Your task to perform on an android device: Search for logitech g903 on amazon, select the first entry, add it to the cart, then select checkout. Image 0: 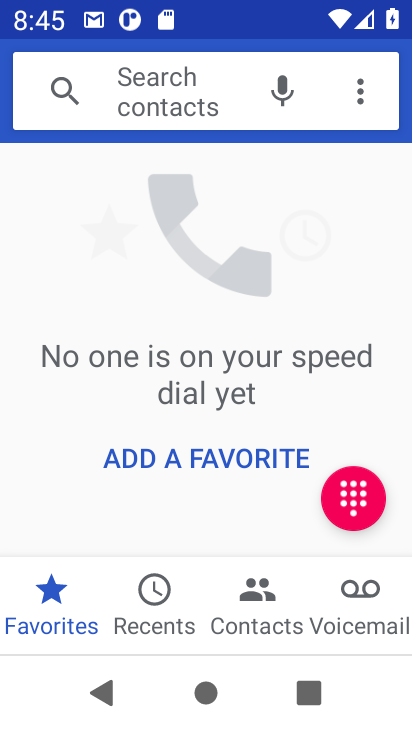
Step 0: press home button
Your task to perform on an android device: Search for logitech g903 on amazon, select the first entry, add it to the cart, then select checkout. Image 1: 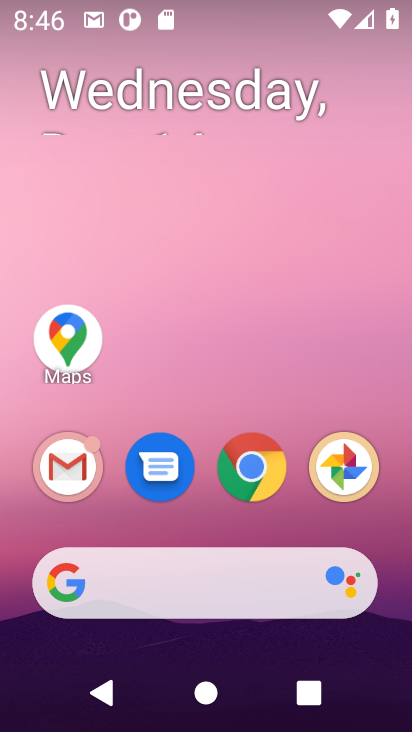
Step 1: click (233, 482)
Your task to perform on an android device: Search for logitech g903 on amazon, select the first entry, add it to the cart, then select checkout. Image 2: 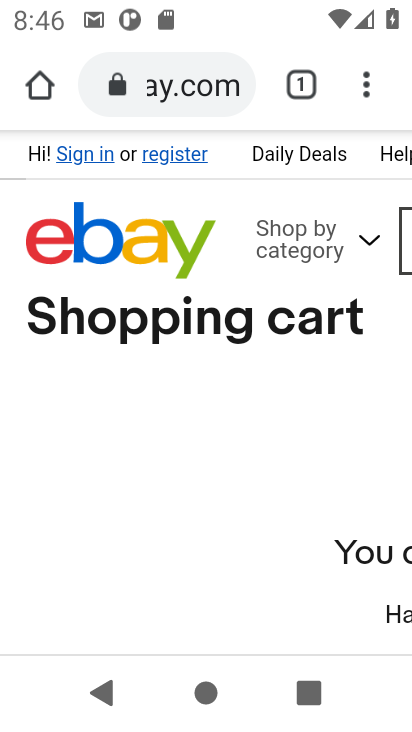
Step 2: click (135, 105)
Your task to perform on an android device: Search for logitech g903 on amazon, select the first entry, add it to the cart, then select checkout. Image 3: 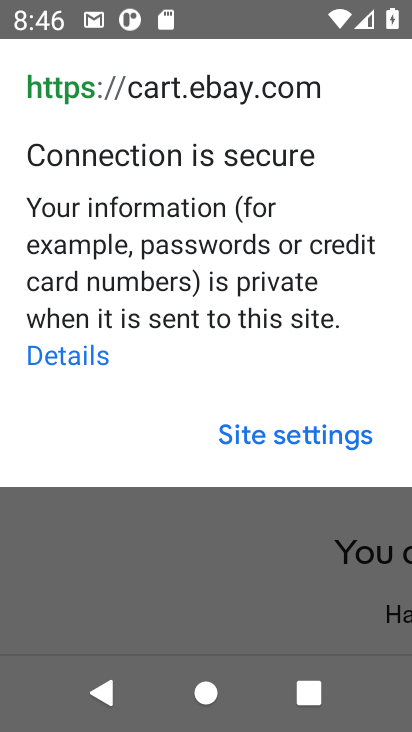
Step 3: click (166, 505)
Your task to perform on an android device: Search for logitech g903 on amazon, select the first entry, add it to the cart, then select checkout. Image 4: 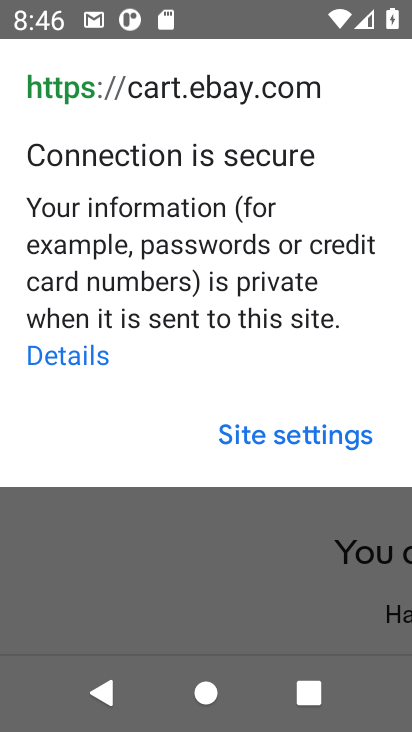
Step 4: click (166, 505)
Your task to perform on an android device: Search for logitech g903 on amazon, select the first entry, add it to the cart, then select checkout. Image 5: 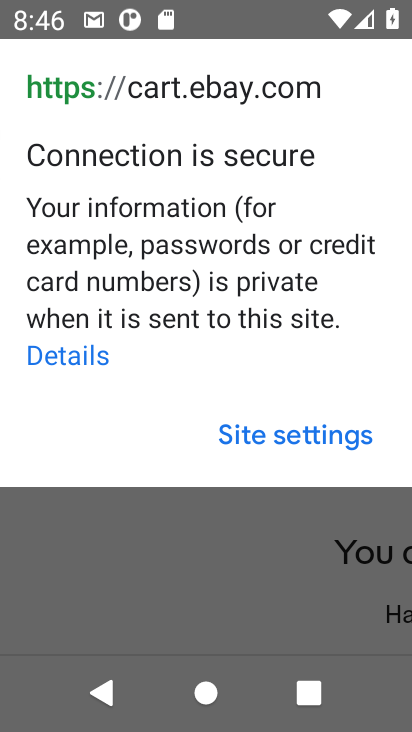
Step 5: click (166, 505)
Your task to perform on an android device: Search for logitech g903 on amazon, select the first entry, add it to the cart, then select checkout. Image 6: 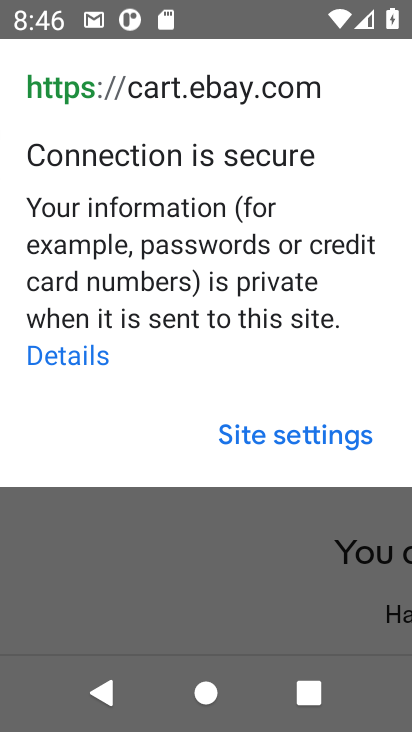
Step 6: click (166, 505)
Your task to perform on an android device: Search for logitech g903 on amazon, select the first entry, add it to the cart, then select checkout. Image 7: 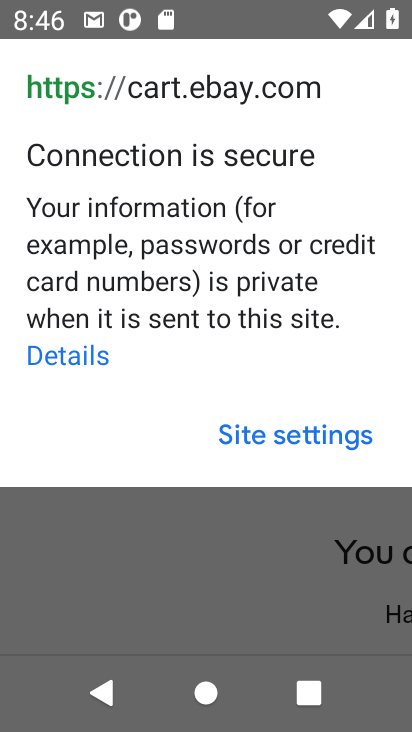
Step 7: click (258, 449)
Your task to perform on an android device: Search for logitech g903 on amazon, select the first entry, add it to the cart, then select checkout. Image 8: 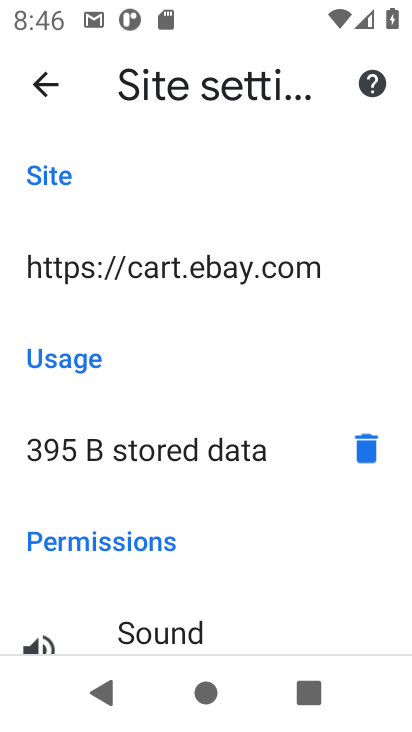
Step 8: click (41, 97)
Your task to perform on an android device: Search for logitech g903 on amazon, select the first entry, add it to the cart, then select checkout. Image 9: 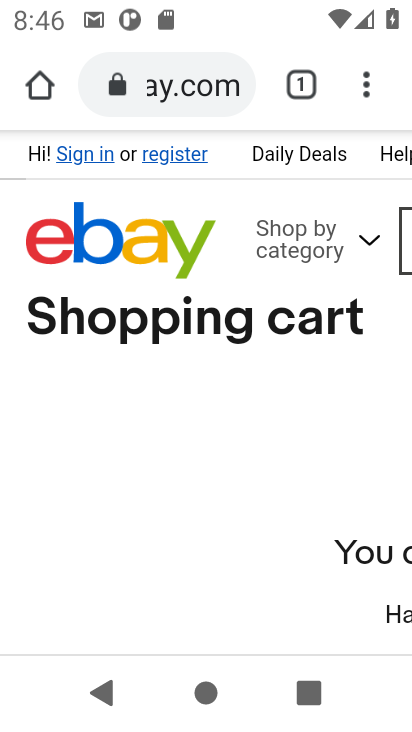
Step 9: click (140, 101)
Your task to perform on an android device: Search for logitech g903 on amazon, select the first entry, add it to the cart, then select checkout. Image 10: 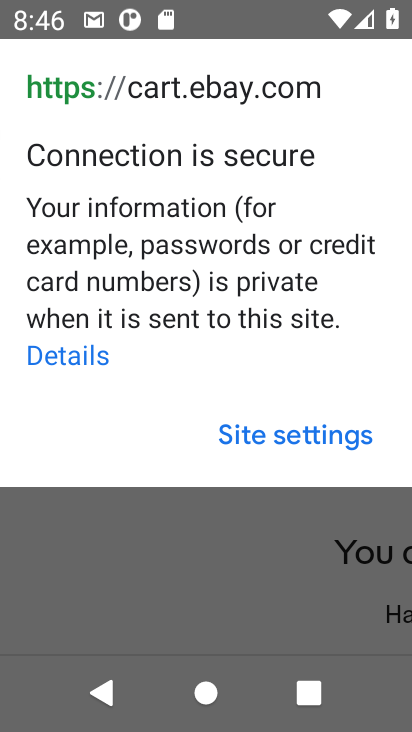
Step 10: click (251, 508)
Your task to perform on an android device: Search for logitech g903 on amazon, select the first entry, add it to the cart, then select checkout. Image 11: 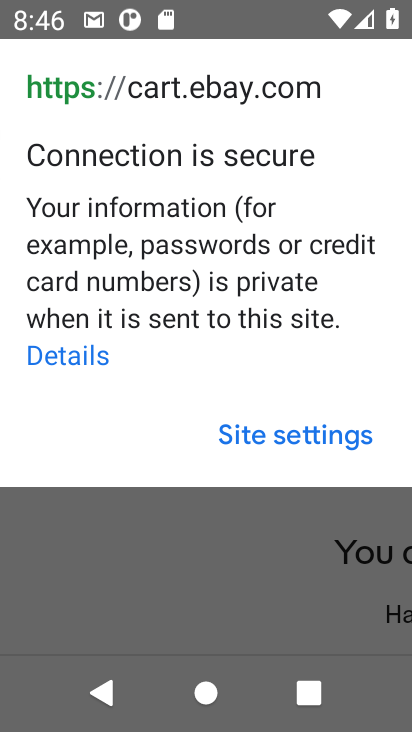
Step 11: click (300, 414)
Your task to perform on an android device: Search for logitech g903 on amazon, select the first entry, add it to the cart, then select checkout. Image 12: 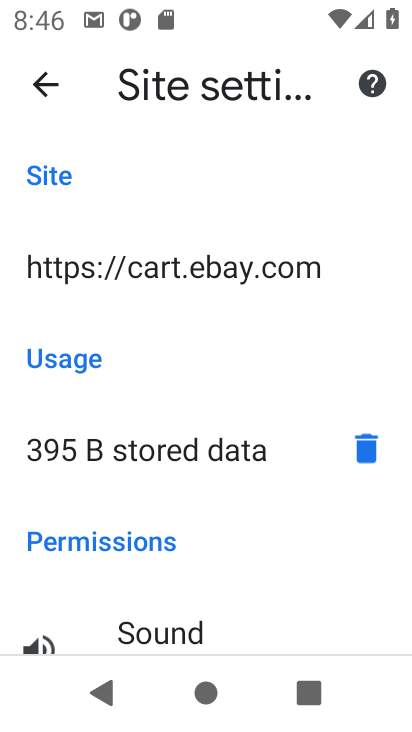
Step 12: click (31, 85)
Your task to perform on an android device: Search for logitech g903 on amazon, select the first entry, add it to the cart, then select checkout. Image 13: 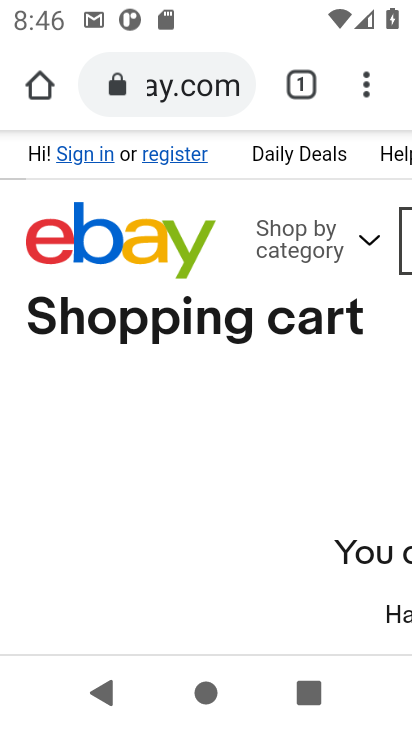
Step 13: click (216, 87)
Your task to perform on an android device: Search for logitech g903 on amazon, select the first entry, add it to the cart, then select checkout. Image 14: 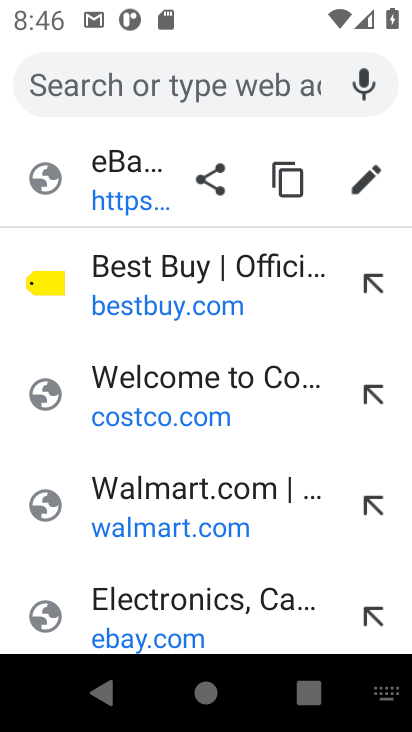
Step 14: type "amazon"
Your task to perform on an android device: Search for logitech g903 on amazon, select the first entry, add it to the cart, then select checkout. Image 15: 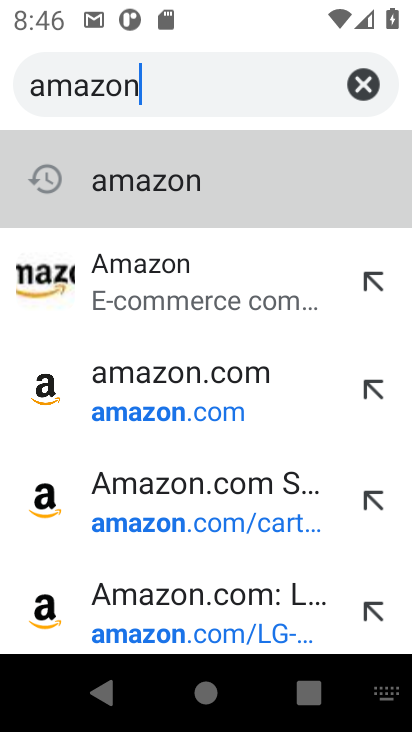
Step 15: click (220, 260)
Your task to perform on an android device: Search for logitech g903 on amazon, select the first entry, add it to the cart, then select checkout. Image 16: 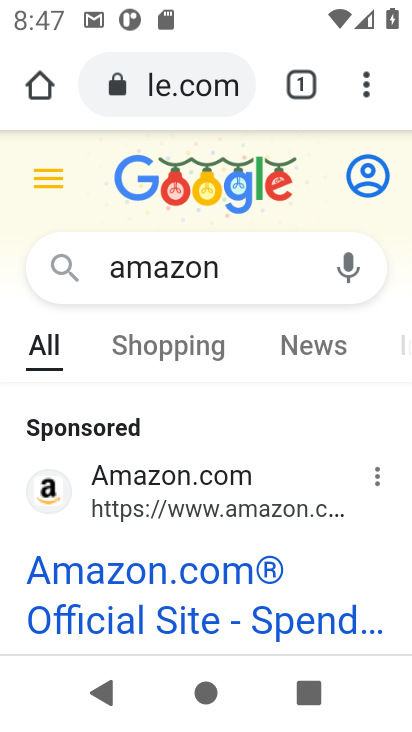
Step 16: click (176, 618)
Your task to perform on an android device: Search for logitech g903 on amazon, select the first entry, add it to the cart, then select checkout. Image 17: 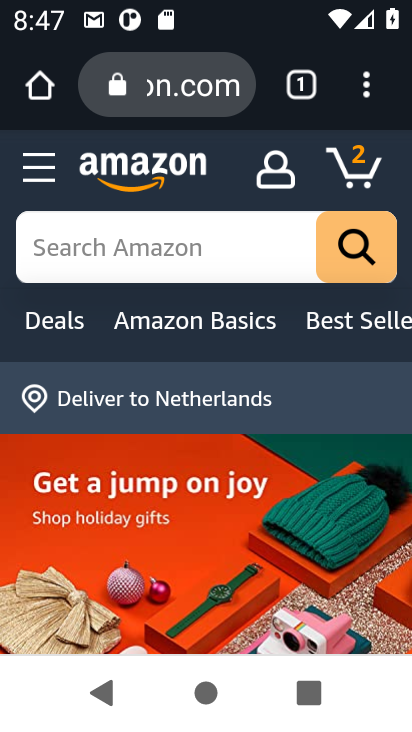
Step 17: task complete